Your task to perform on an android device: Go to Google Image 0: 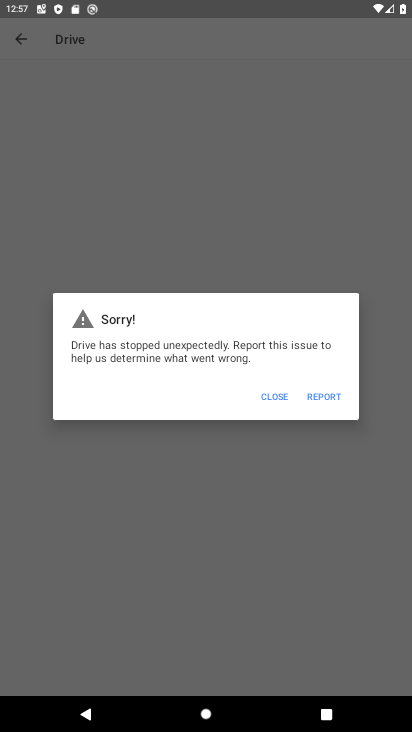
Step 0: press home button
Your task to perform on an android device: Go to Google Image 1: 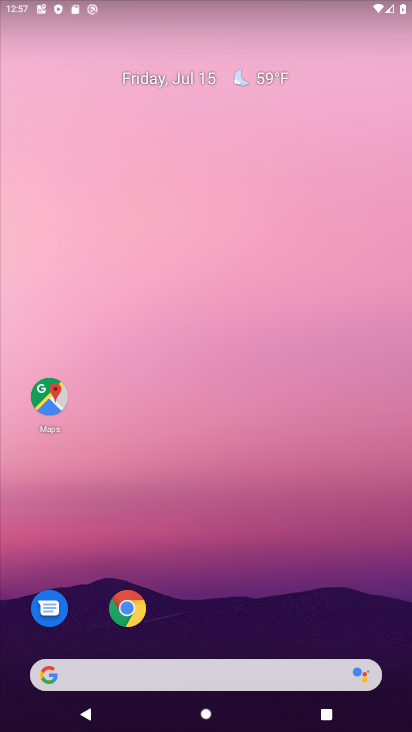
Step 1: drag from (130, 656) to (130, 364)
Your task to perform on an android device: Go to Google Image 2: 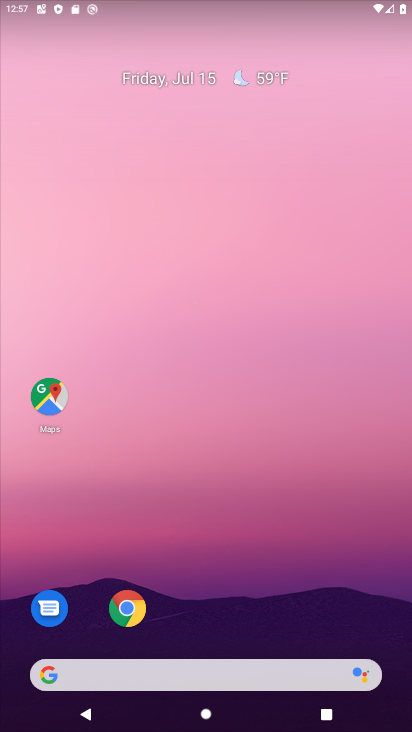
Step 2: drag from (244, 656) to (229, 160)
Your task to perform on an android device: Go to Google Image 3: 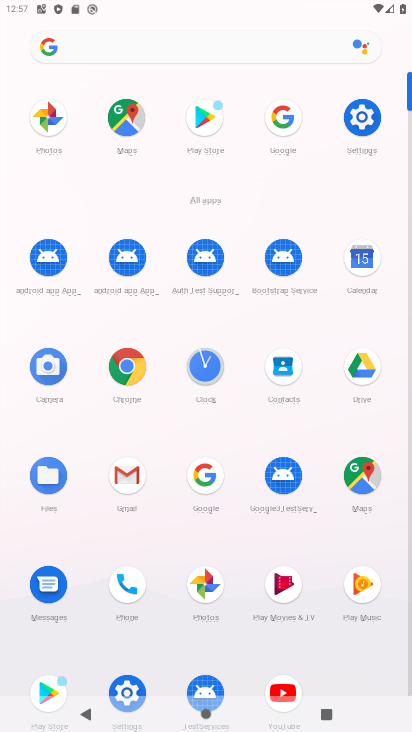
Step 3: click (197, 478)
Your task to perform on an android device: Go to Google Image 4: 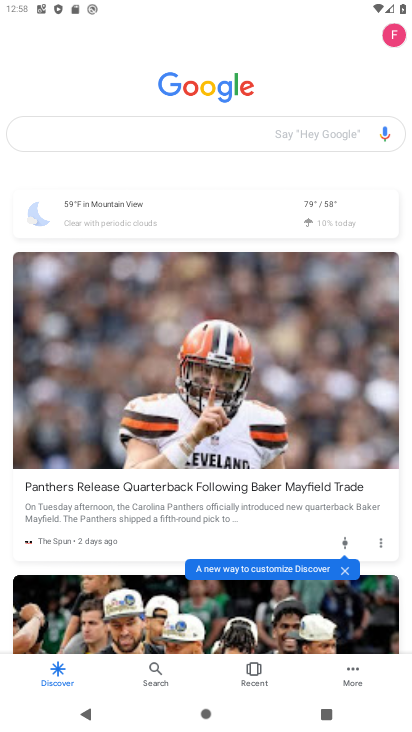
Step 4: task complete